Your task to perform on an android device: check google app version Image 0: 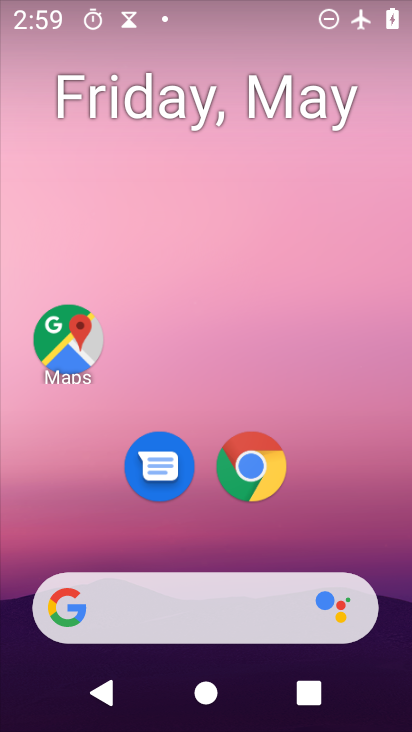
Step 0: click (342, 26)
Your task to perform on an android device: check google app version Image 1: 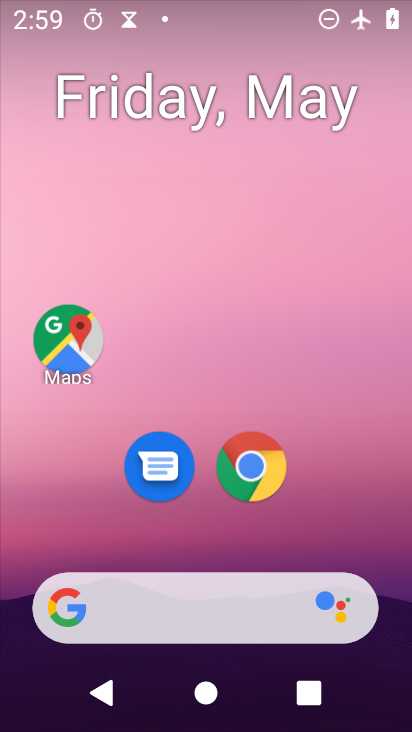
Step 1: drag from (343, 498) to (366, 80)
Your task to perform on an android device: check google app version Image 2: 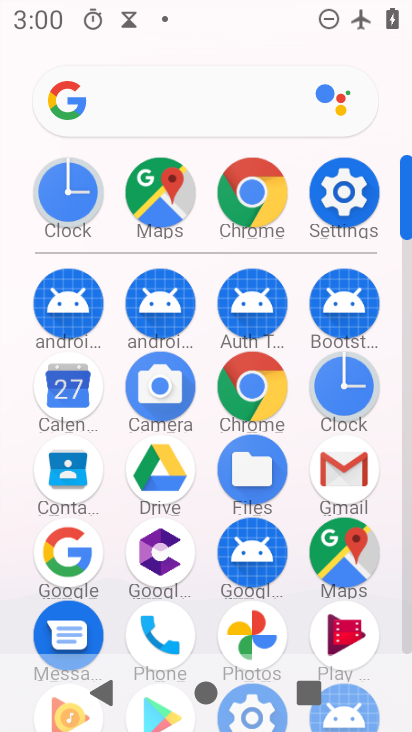
Step 2: drag from (398, 469) to (401, 94)
Your task to perform on an android device: check google app version Image 3: 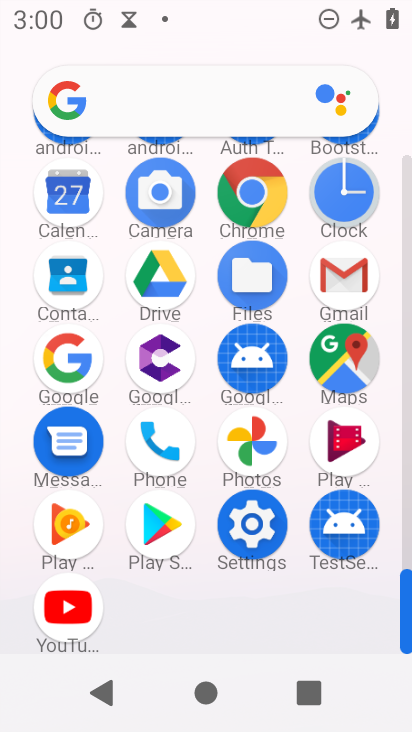
Step 3: drag from (395, 278) to (371, 556)
Your task to perform on an android device: check google app version Image 4: 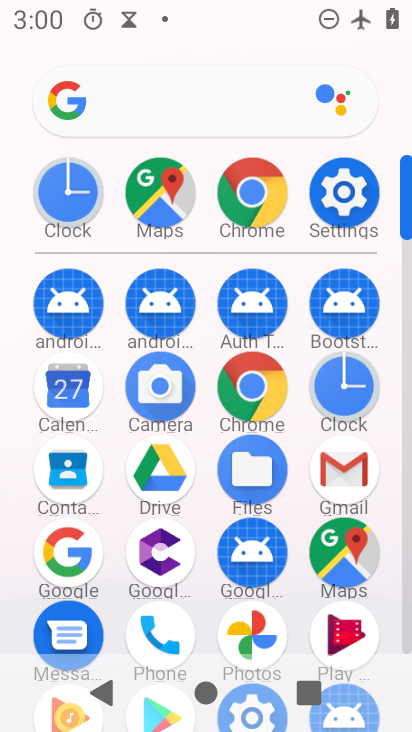
Step 4: click (66, 565)
Your task to perform on an android device: check google app version Image 5: 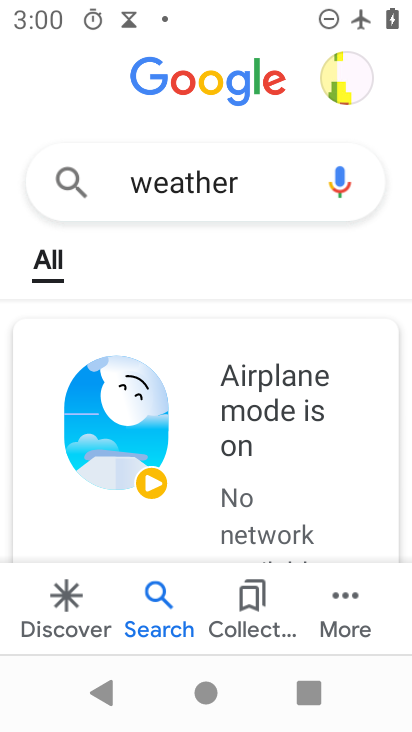
Step 5: click (324, 614)
Your task to perform on an android device: check google app version Image 6: 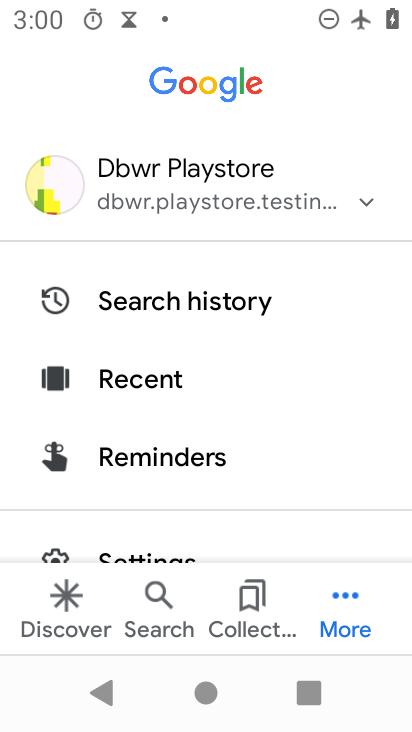
Step 6: drag from (220, 387) to (223, 102)
Your task to perform on an android device: check google app version Image 7: 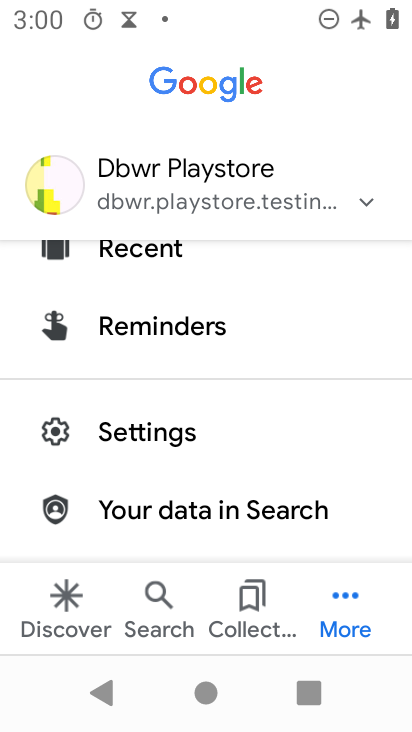
Step 7: click (147, 425)
Your task to perform on an android device: check google app version Image 8: 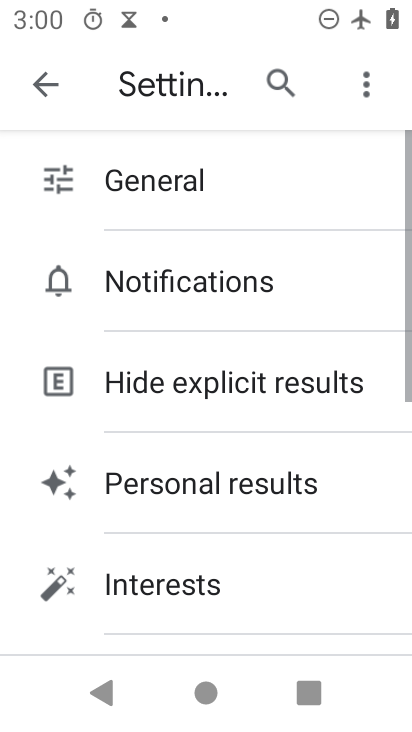
Step 8: drag from (203, 578) to (281, 85)
Your task to perform on an android device: check google app version Image 9: 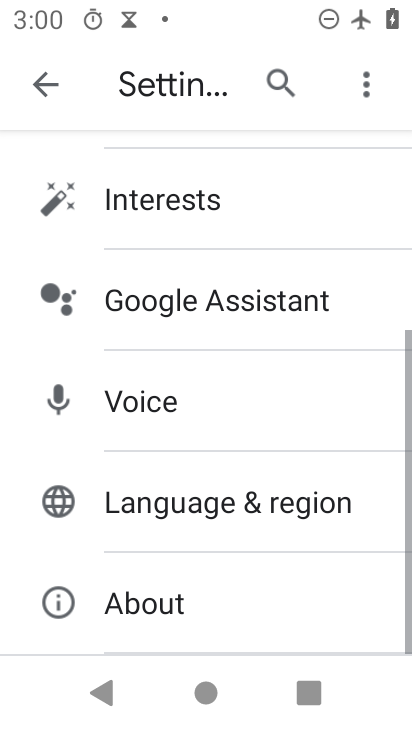
Step 9: drag from (246, 594) to (311, 170)
Your task to perform on an android device: check google app version Image 10: 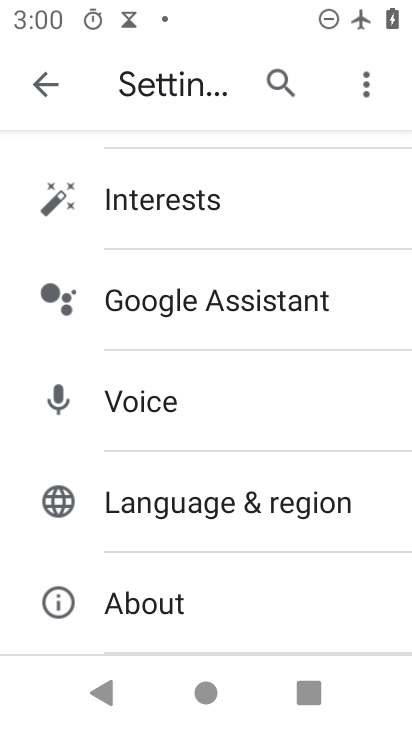
Step 10: drag from (254, 542) to (308, 219)
Your task to perform on an android device: check google app version Image 11: 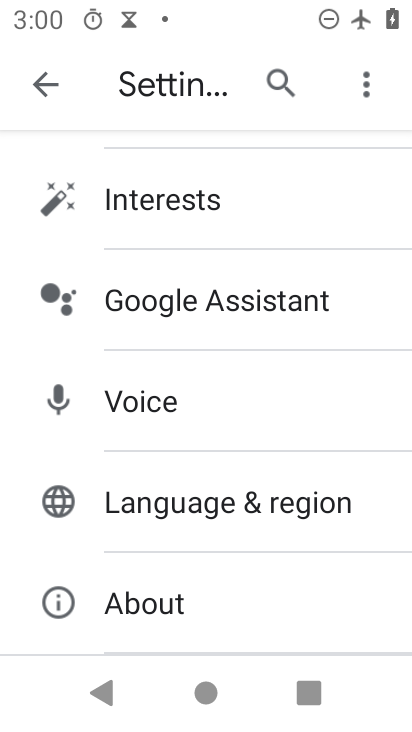
Step 11: click (198, 595)
Your task to perform on an android device: check google app version Image 12: 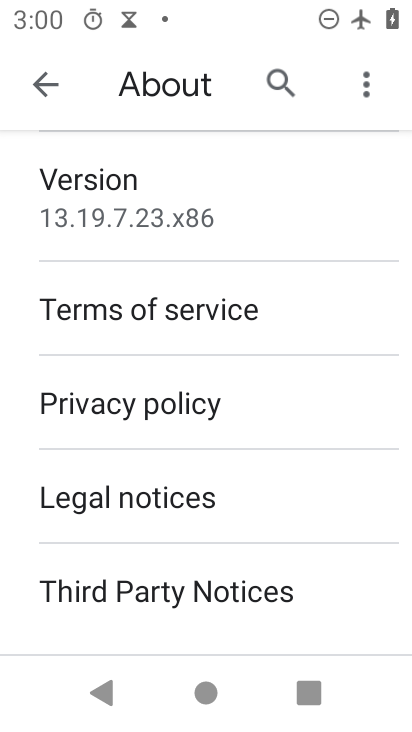
Step 12: drag from (207, 574) to (213, 137)
Your task to perform on an android device: check google app version Image 13: 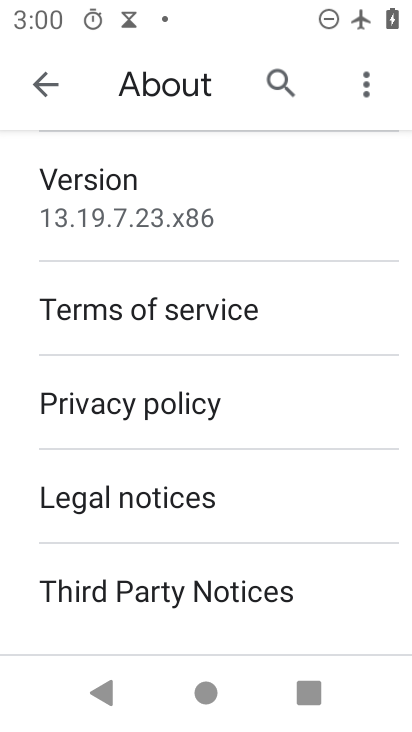
Step 13: drag from (170, 531) to (222, 104)
Your task to perform on an android device: check google app version Image 14: 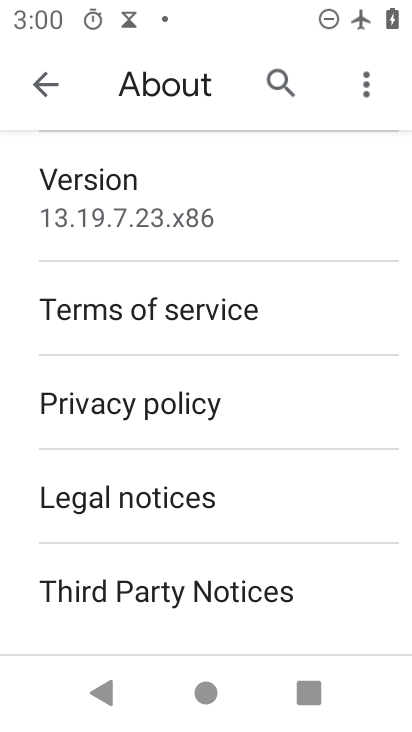
Step 14: drag from (230, 144) to (227, 616)
Your task to perform on an android device: check google app version Image 15: 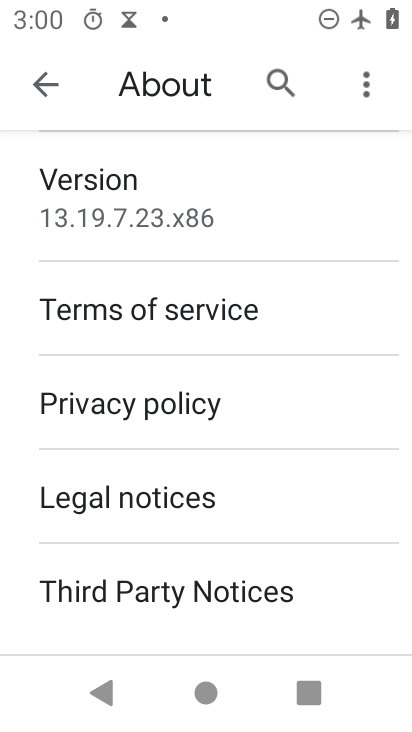
Step 15: click (133, 190)
Your task to perform on an android device: check google app version Image 16: 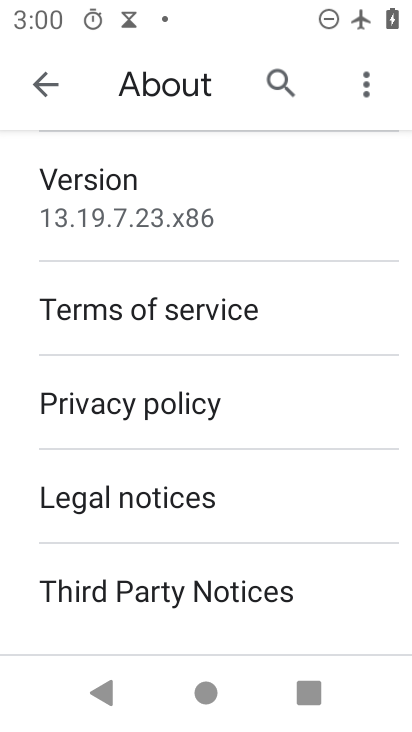
Step 16: task complete